Your task to perform on an android device: Open Google Chrome and open the bookmarks view Image 0: 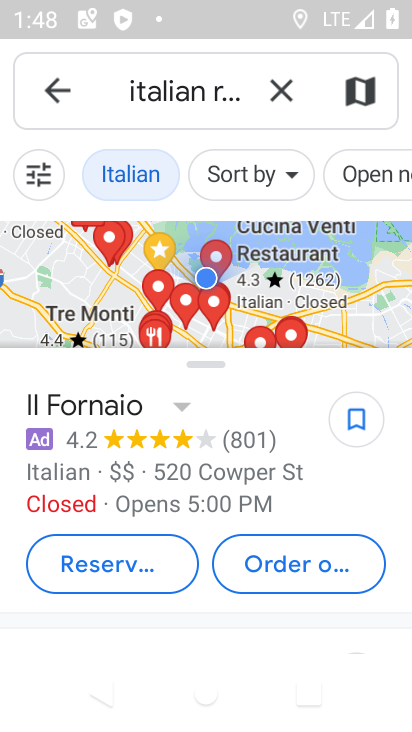
Step 0: press home button
Your task to perform on an android device: Open Google Chrome and open the bookmarks view Image 1: 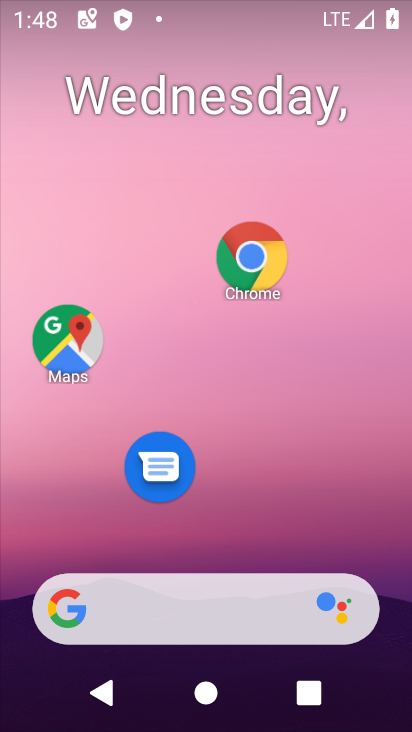
Step 1: drag from (296, 540) to (346, 75)
Your task to perform on an android device: Open Google Chrome and open the bookmarks view Image 2: 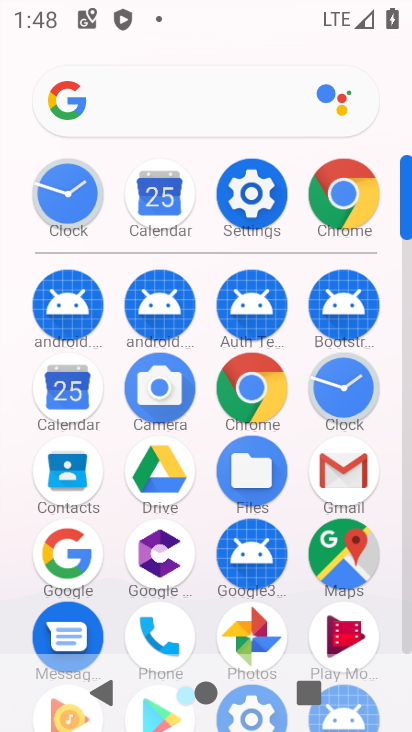
Step 2: click (251, 368)
Your task to perform on an android device: Open Google Chrome and open the bookmarks view Image 3: 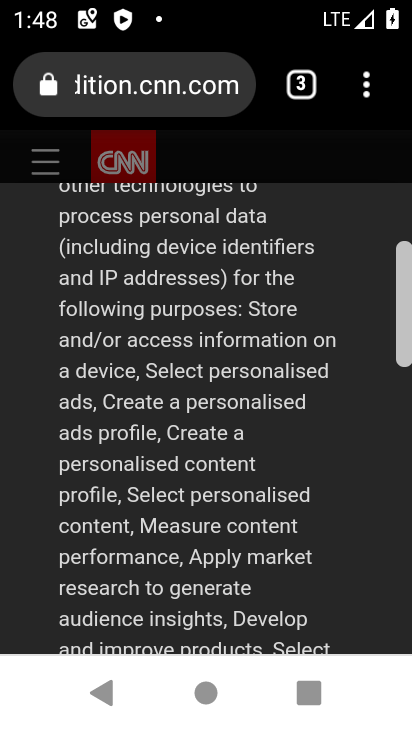
Step 3: task complete